Your task to perform on an android device: open a new tab in the chrome app Image 0: 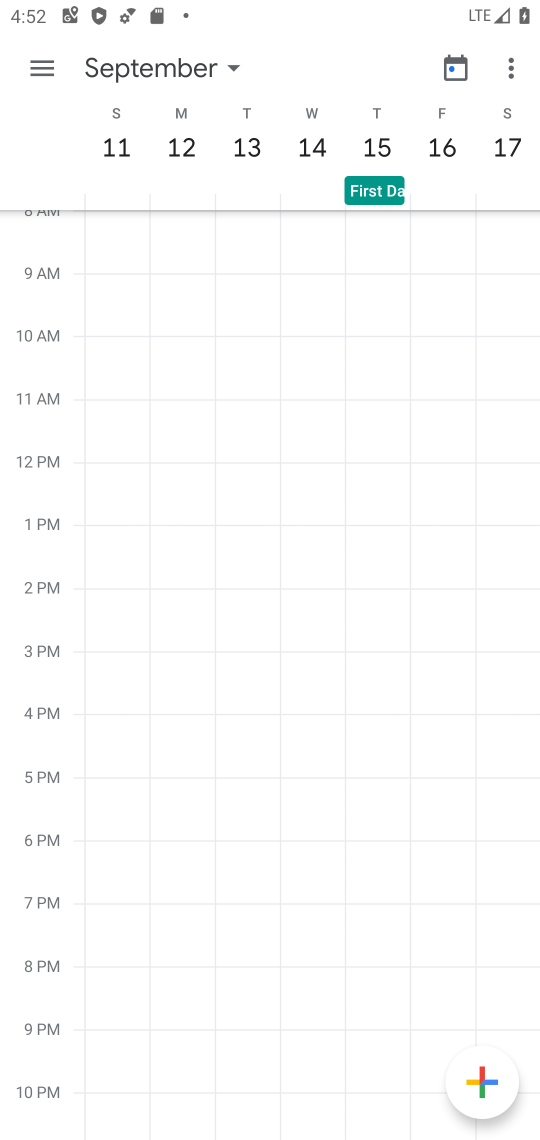
Step 0: press home button
Your task to perform on an android device: open a new tab in the chrome app Image 1: 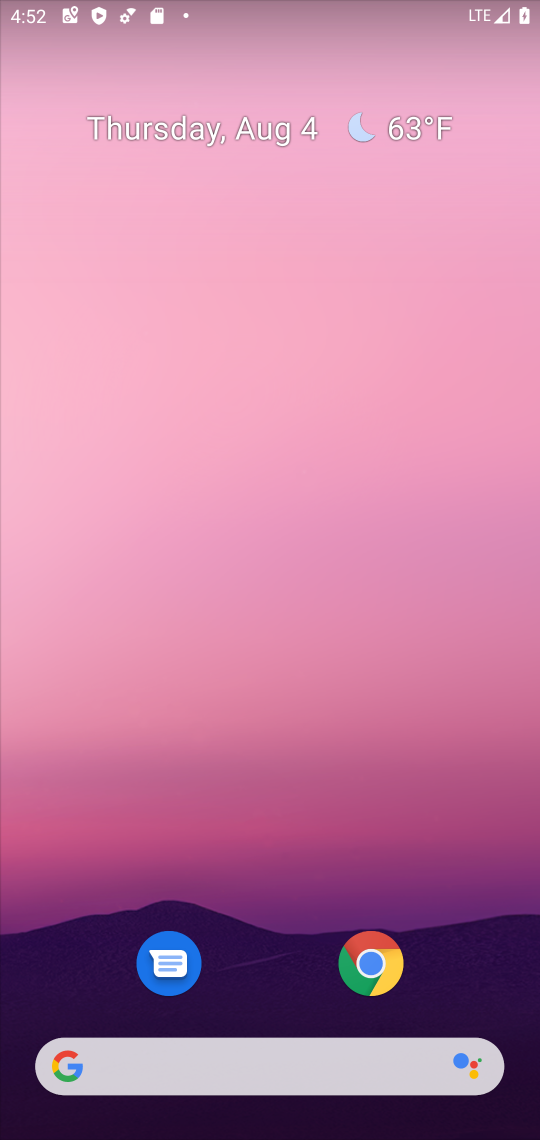
Step 1: click (375, 958)
Your task to perform on an android device: open a new tab in the chrome app Image 2: 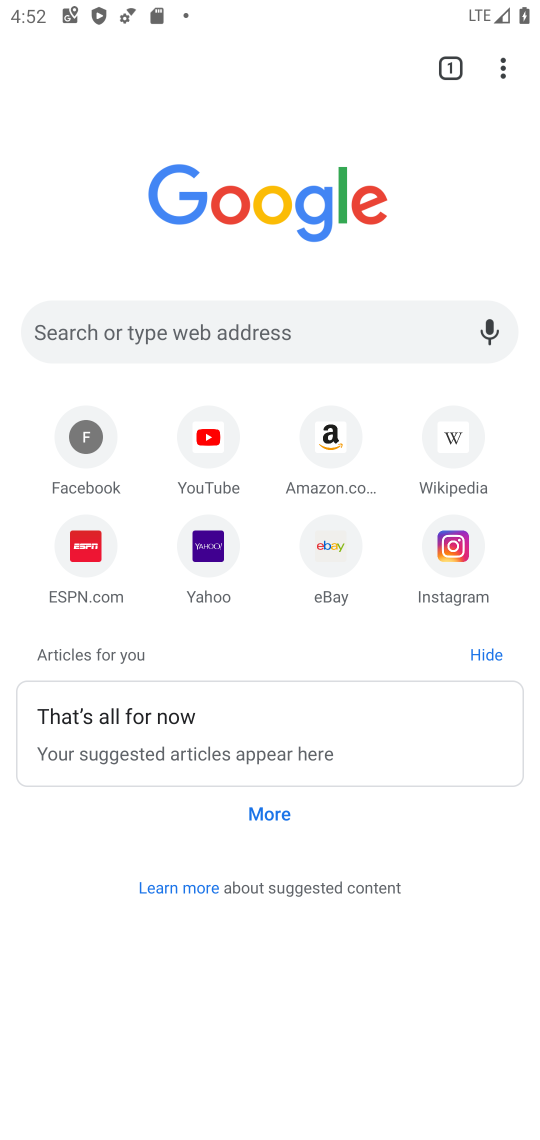
Step 2: click (504, 63)
Your task to perform on an android device: open a new tab in the chrome app Image 3: 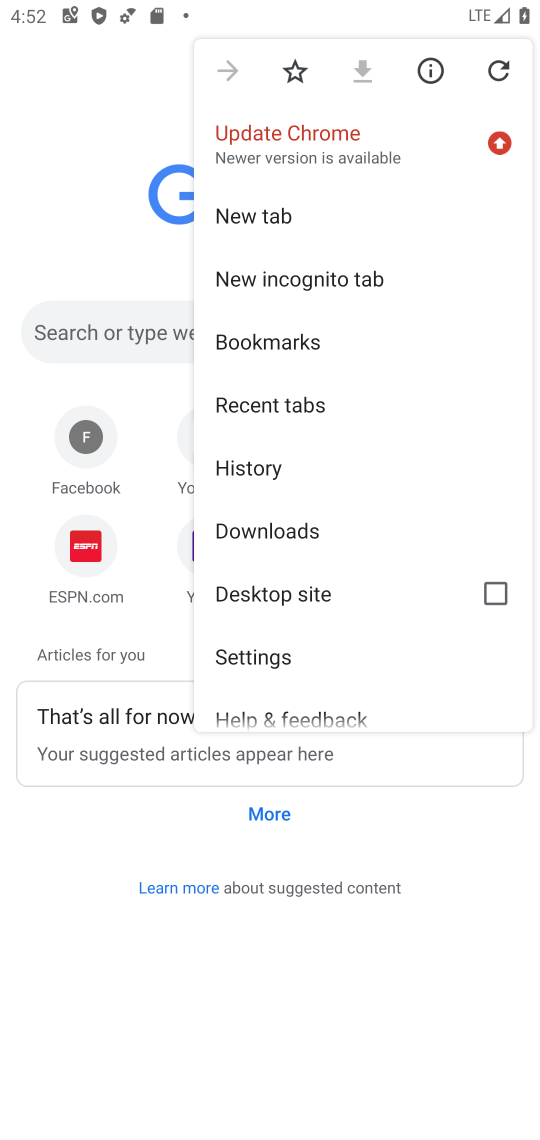
Step 3: click (273, 209)
Your task to perform on an android device: open a new tab in the chrome app Image 4: 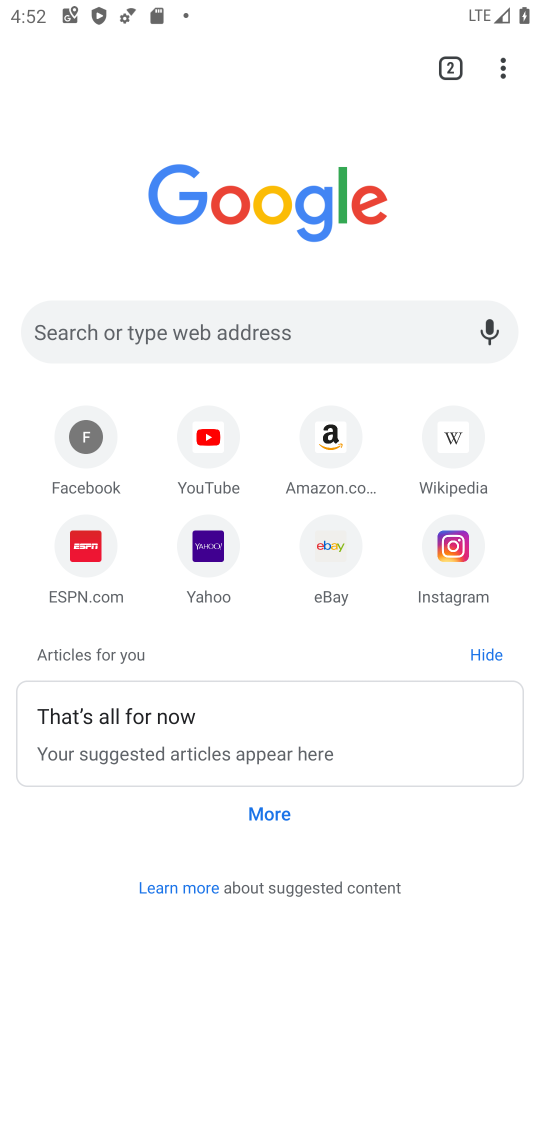
Step 4: task complete